Your task to perform on an android device: turn on location history Image 0: 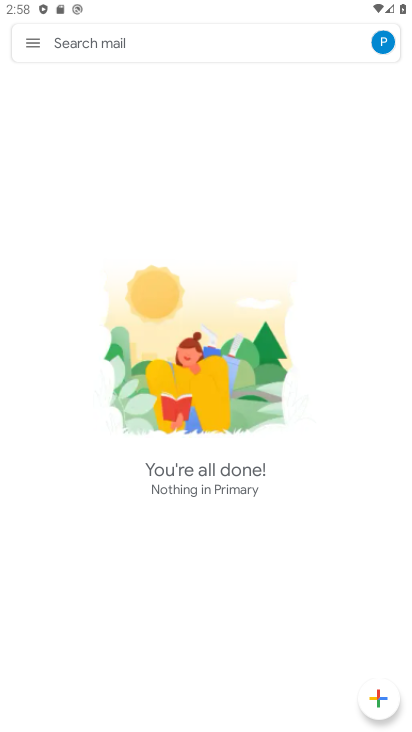
Step 0: press home button
Your task to perform on an android device: turn on location history Image 1: 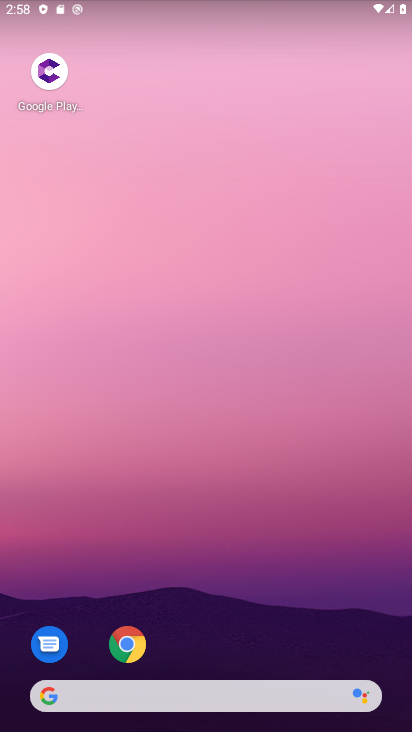
Step 1: drag from (388, 649) to (333, 74)
Your task to perform on an android device: turn on location history Image 2: 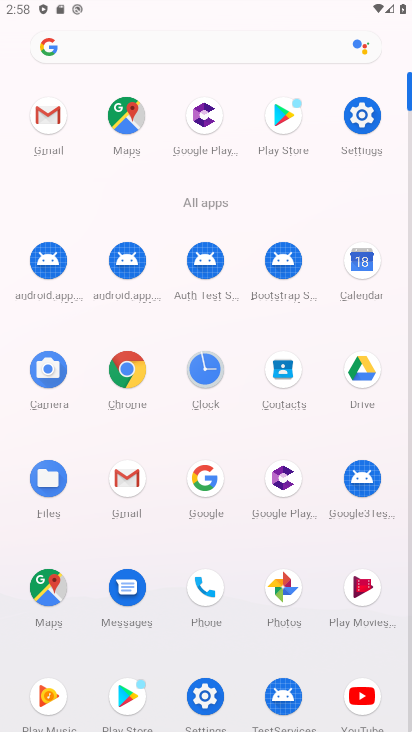
Step 2: click (49, 589)
Your task to perform on an android device: turn on location history Image 3: 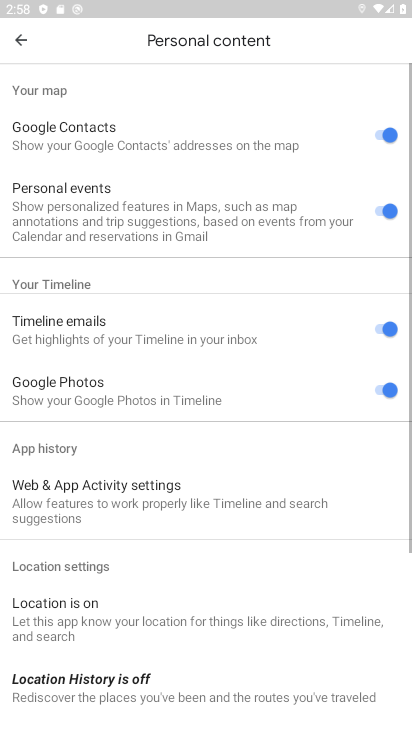
Step 3: click (92, 668)
Your task to perform on an android device: turn on location history Image 4: 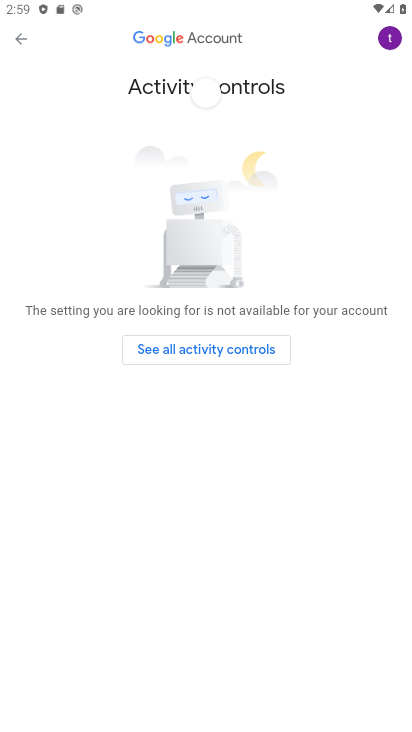
Step 4: click (188, 350)
Your task to perform on an android device: turn on location history Image 5: 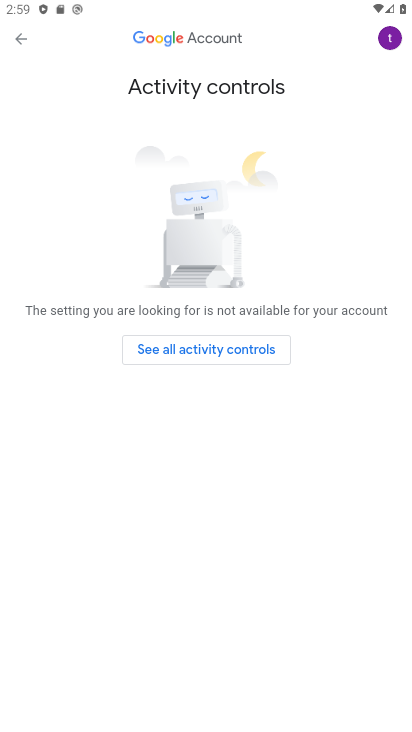
Step 5: click (187, 351)
Your task to perform on an android device: turn on location history Image 6: 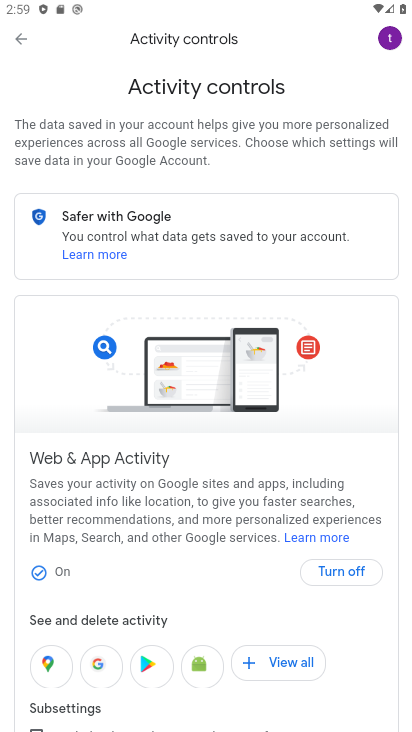
Step 6: task complete